Your task to perform on an android device: Open Yahoo.com Image 0: 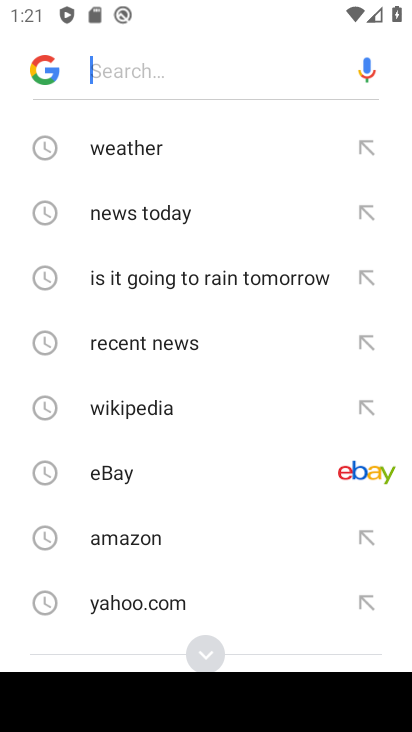
Step 0: press back button
Your task to perform on an android device: Open Yahoo.com Image 1: 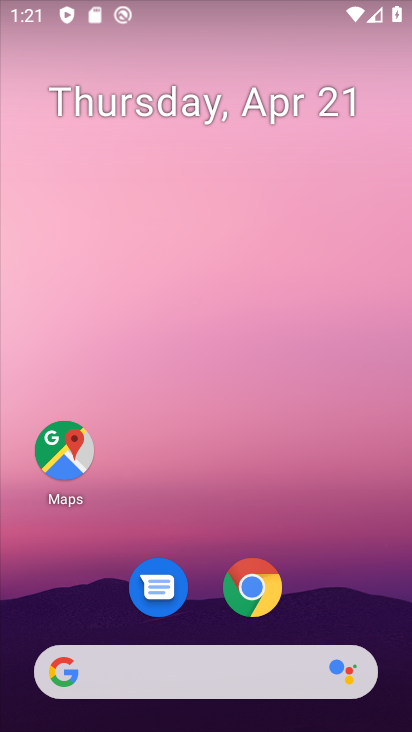
Step 1: click (270, 593)
Your task to perform on an android device: Open Yahoo.com Image 2: 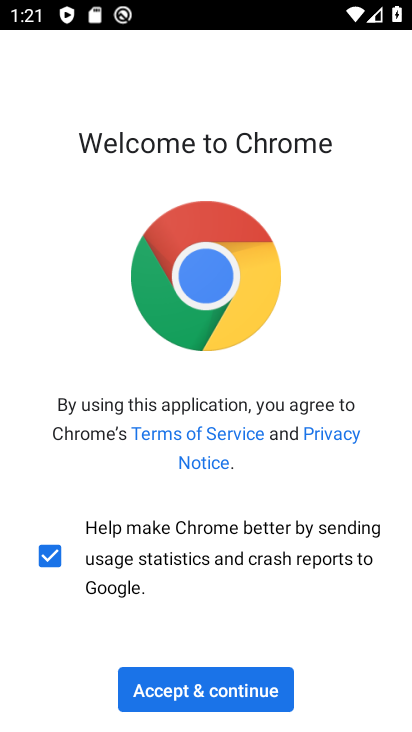
Step 2: click (243, 683)
Your task to perform on an android device: Open Yahoo.com Image 3: 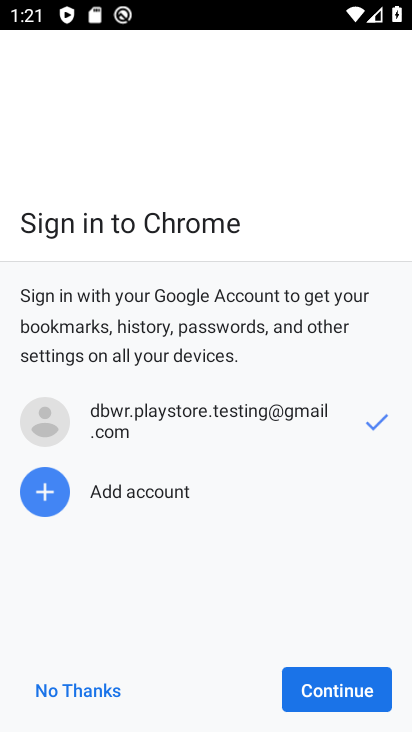
Step 3: click (320, 680)
Your task to perform on an android device: Open Yahoo.com Image 4: 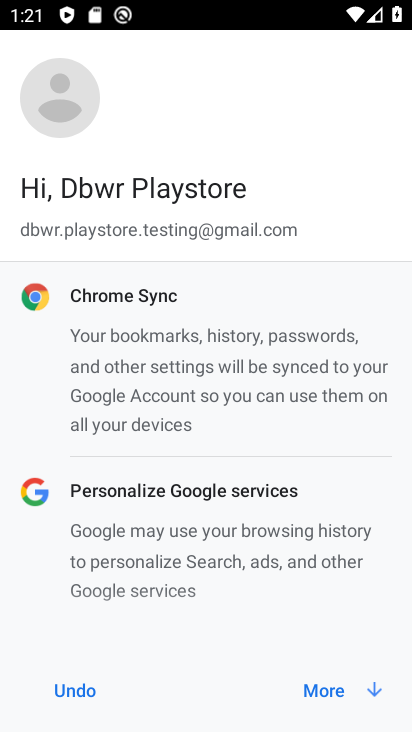
Step 4: click (320, 680)
Your task to perform on an android device: Open Yahoo.com Image 5: 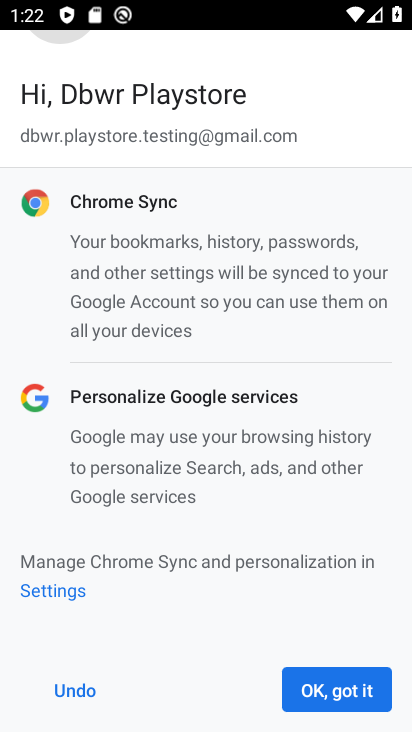
Step 5: click (321, 686)
Your task to perform on an android device: Open Yahoo.com Image 6: 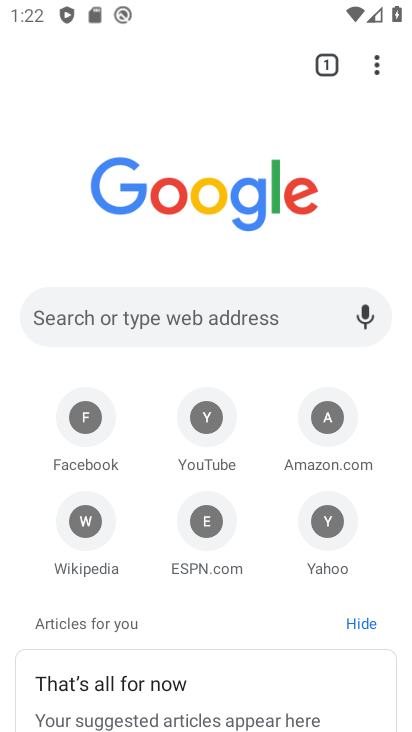
Step 6: click (198, 69)
Your task to perform on an android device: Open Yahoo.com Image 7: 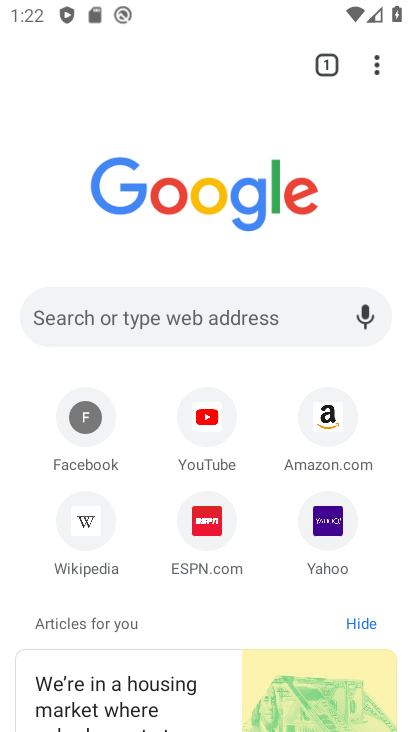
Step 7: click (319, 537)
Your task to perform on an android device: Open Yahoo.com Image 8: 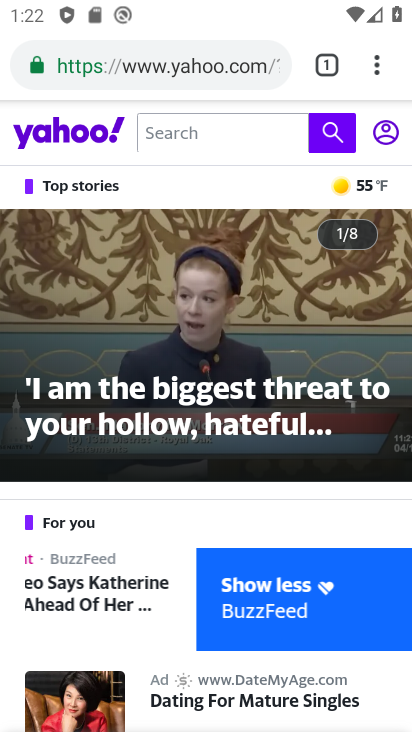
Step 8: task complete